Your task to perform on an android device: What's the news this weekend? Image 0: 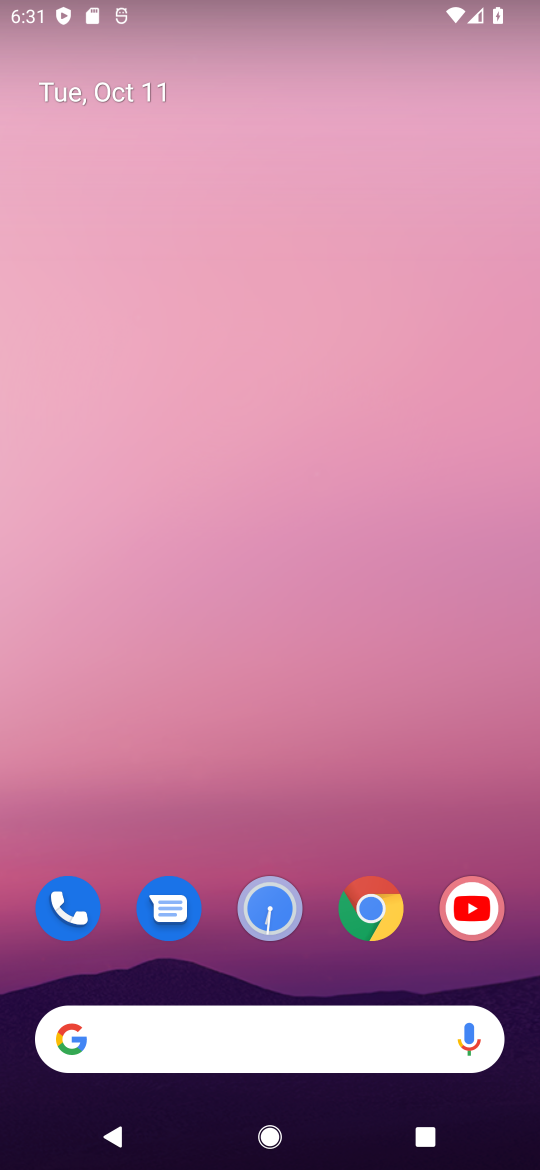
Step 0: click (239, 1031)
Your task to perform on an android device: What's the news this weekend? Image 1: 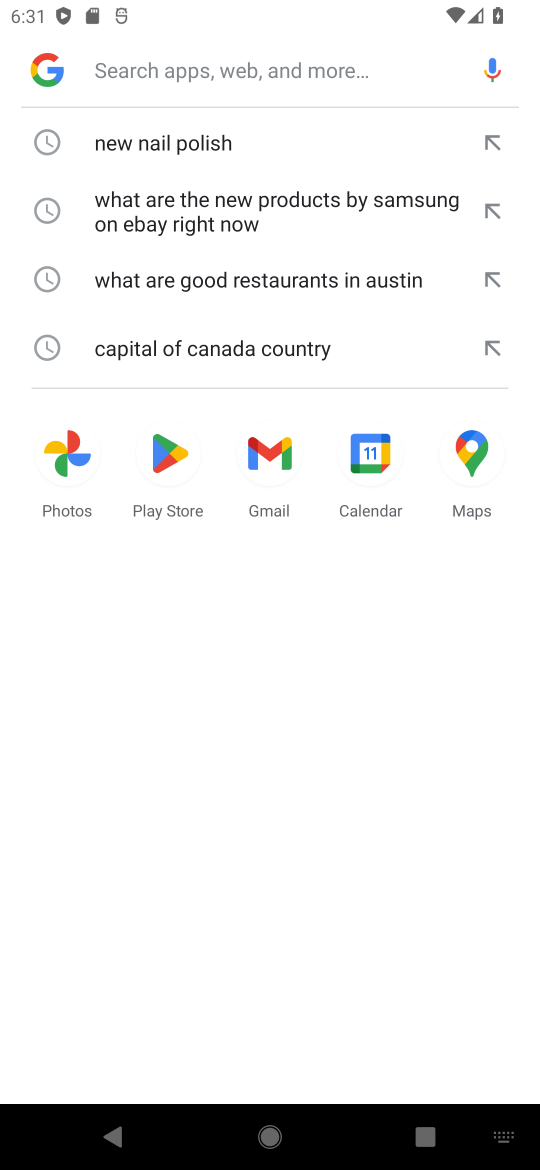
Step 1: type "news this weekend?"
Your task to perform on an android device: What's the news this weekend? Image 2: 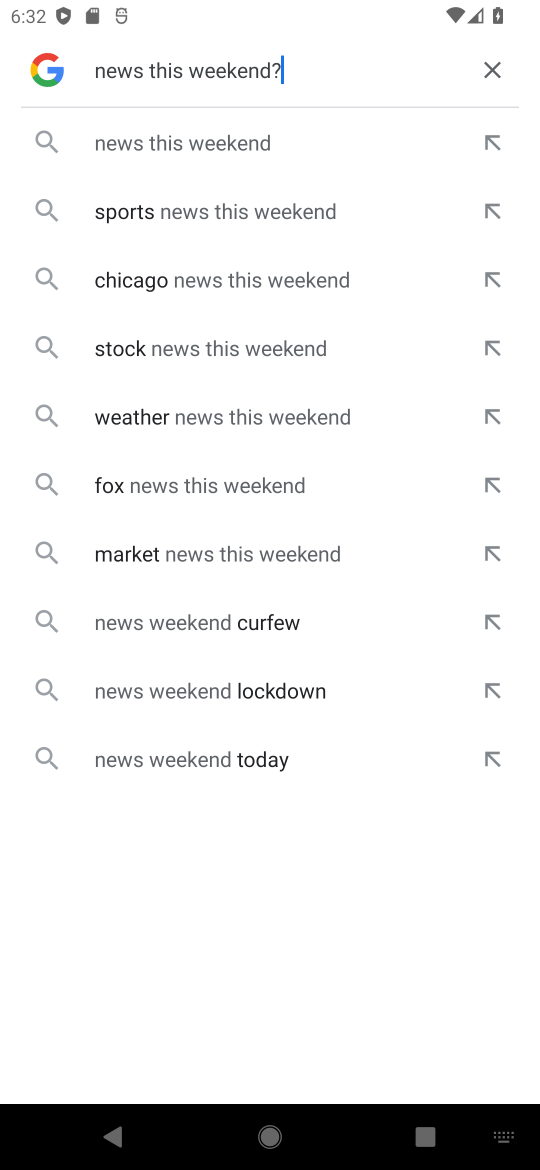
Step 2: click (159, 139)
Your task to perform on an android device: What's the news this weekend? Image 3: 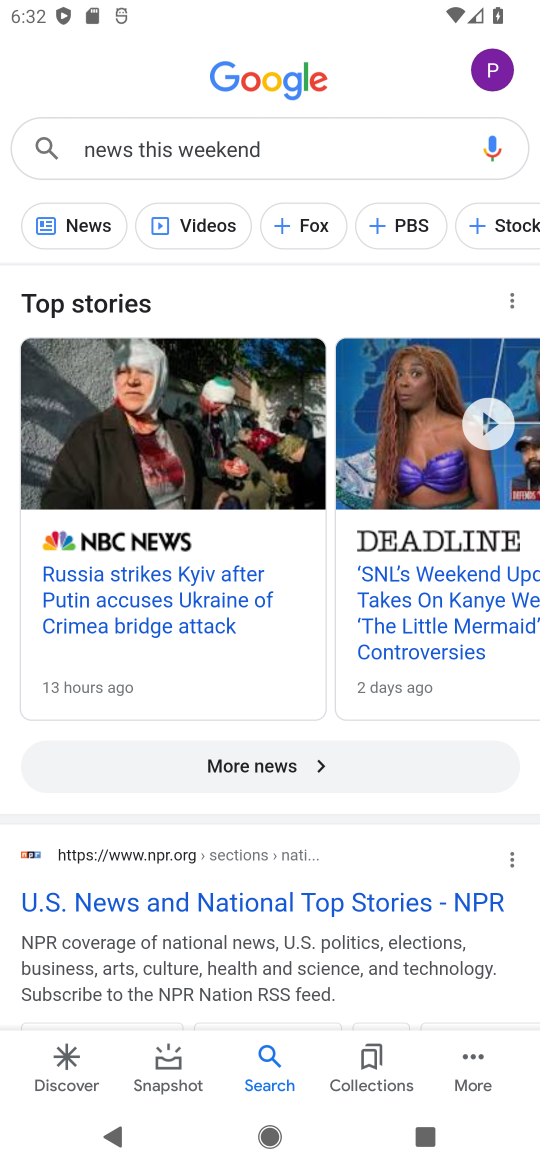
Step 3: click (203, 901)
Your task to perform on an android device: What's the news this weekend? Image 4: 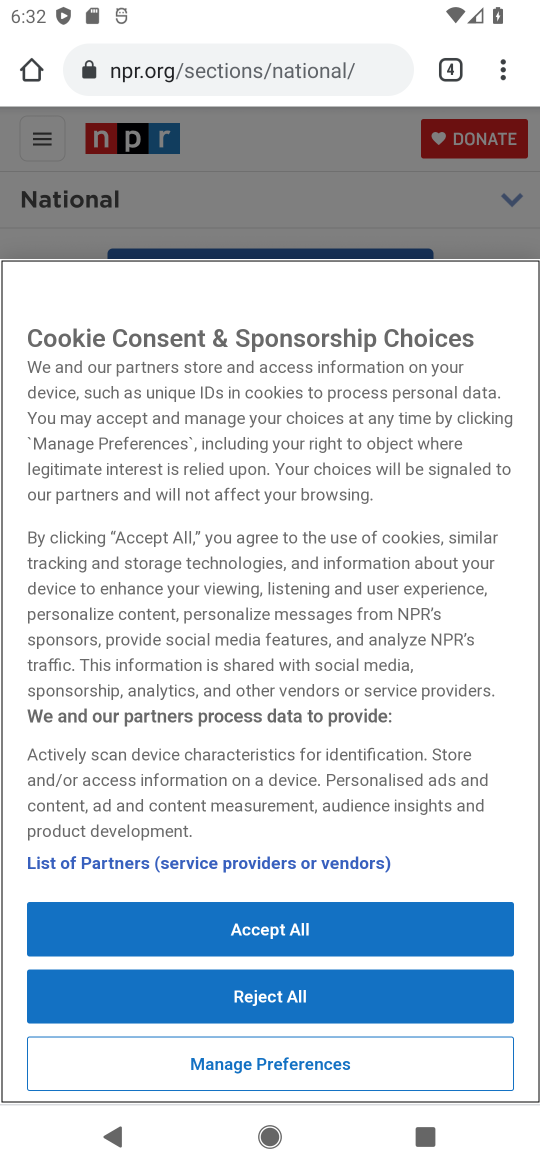
Step 4: click (244, 933)
Your task to perform on an android device: What's the news this weekend? Image 5: 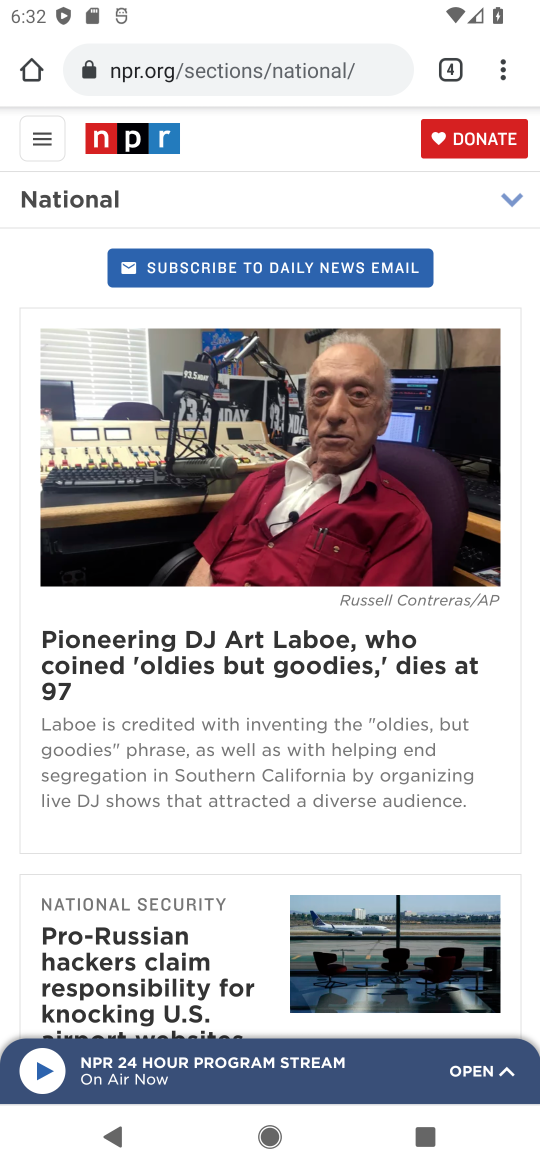
Step 5: task complete